Your task to perform on an android device: open app "Firefox Browser" Image 0: 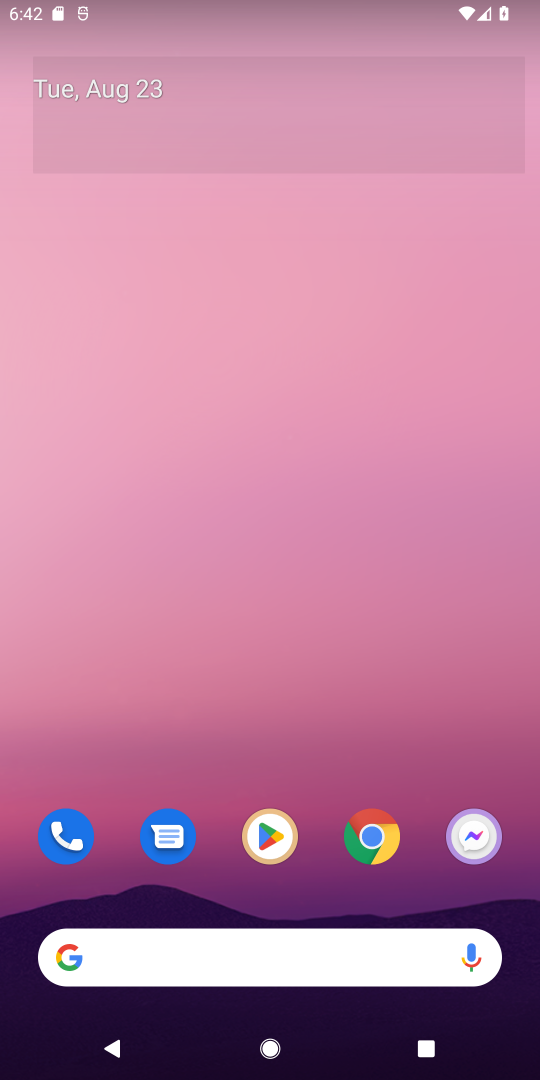
Step 0: click (278, 832)
Your task to perform on an android device: open app "Firefox Browser" Image 1: 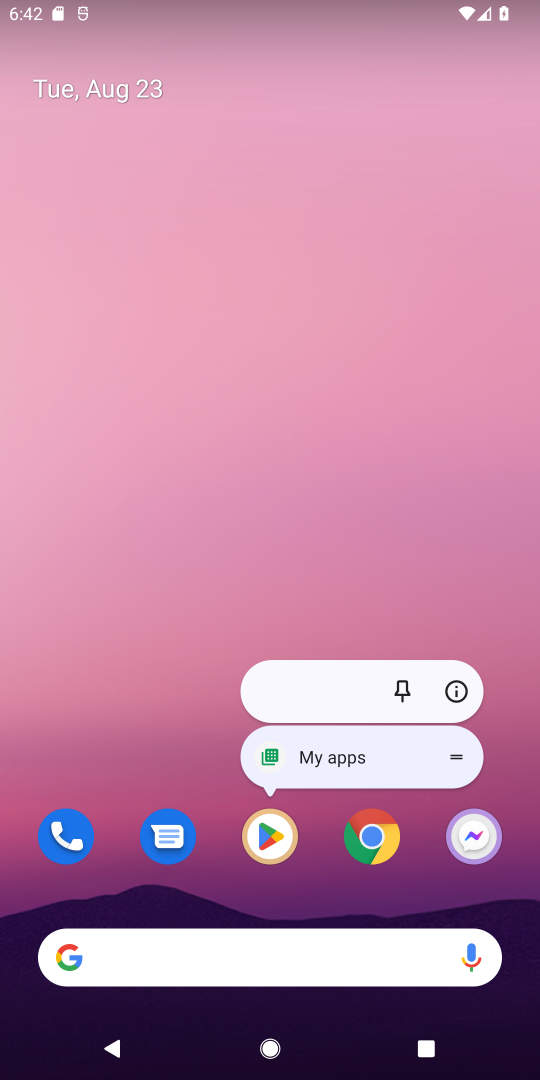
Step 1: click (267, 830)
Your task to perform on an android device: open app "Firefox Browser" Image 2: 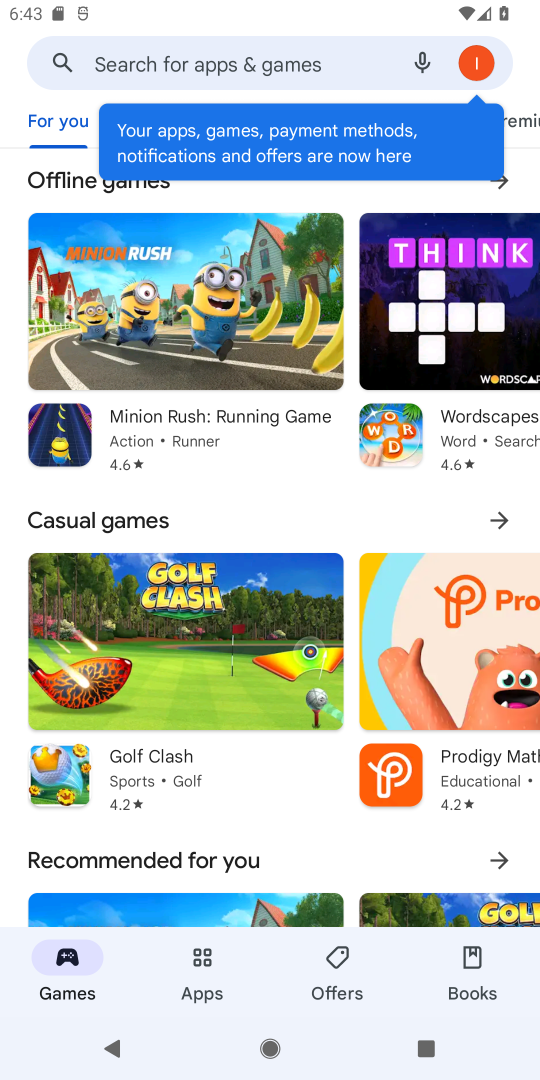
Step 2: click (272, 58)
Your task to perform on an android device: open app "Firefox Browser" Image 3: 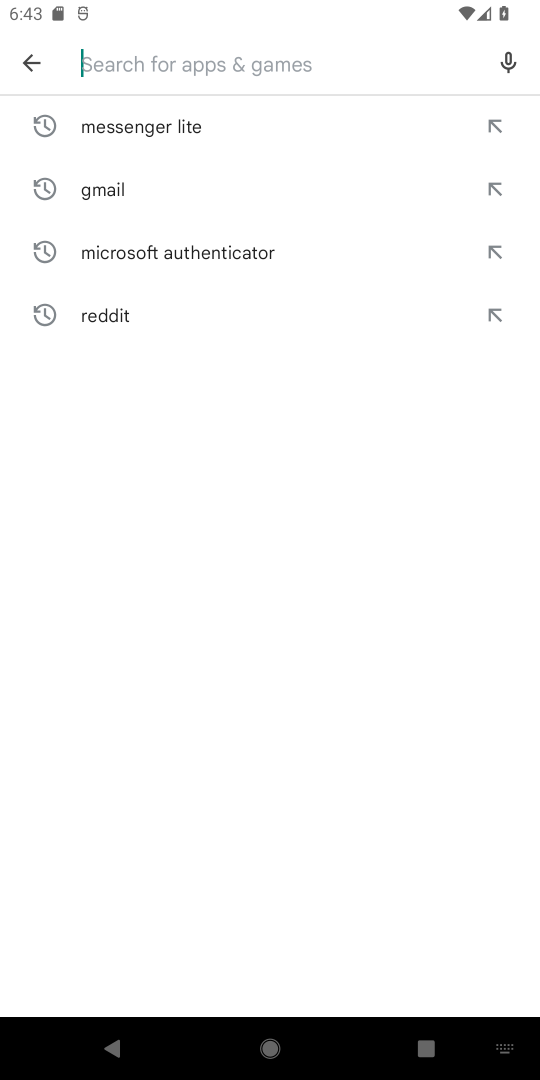
Step 3: type "Firefox Browser"
Your task to perform on an android device: open app "Firefox Browser" Image 4: 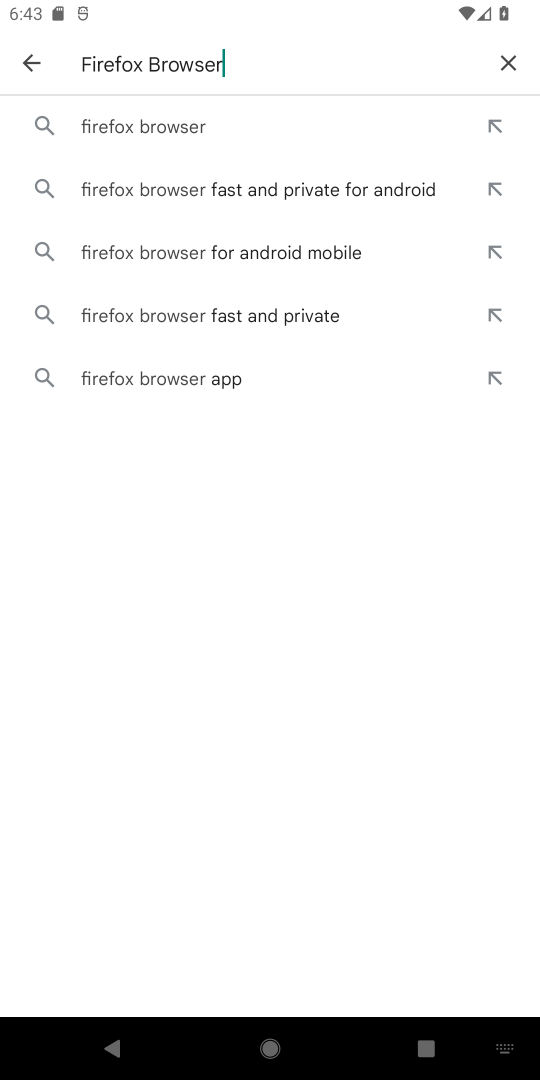
Step 4: click (167, 128)
Your task to perform on an android device: open app "Firefox Browser" Image 5: 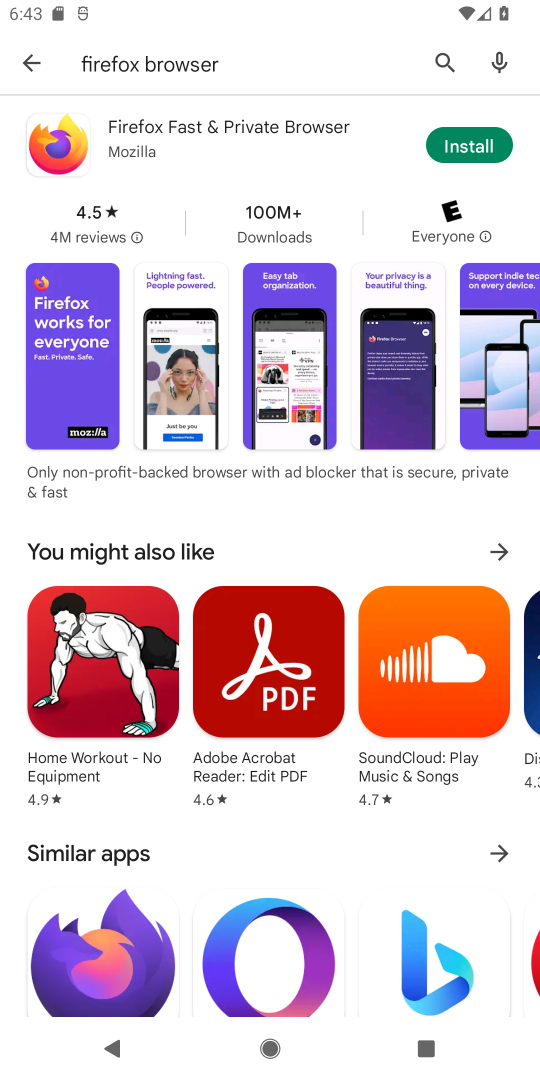
Step 5: task complete